Your task to perform on an android device: snooze an email in the gmail app Image 0: 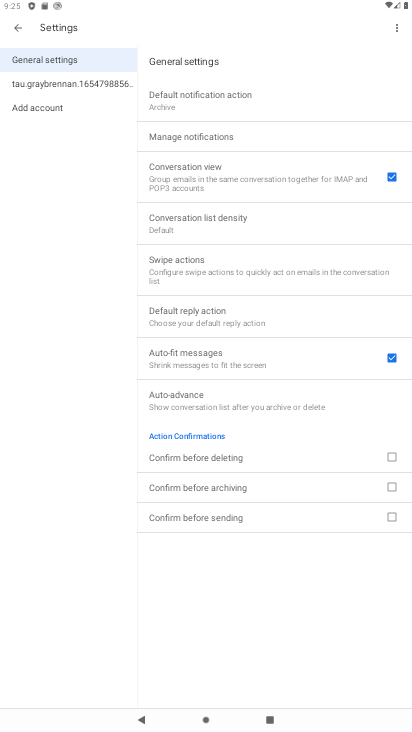
Step 0: click (24, 25)
Your task to perform on an android device: snooze an email in the gmail app Image 1: 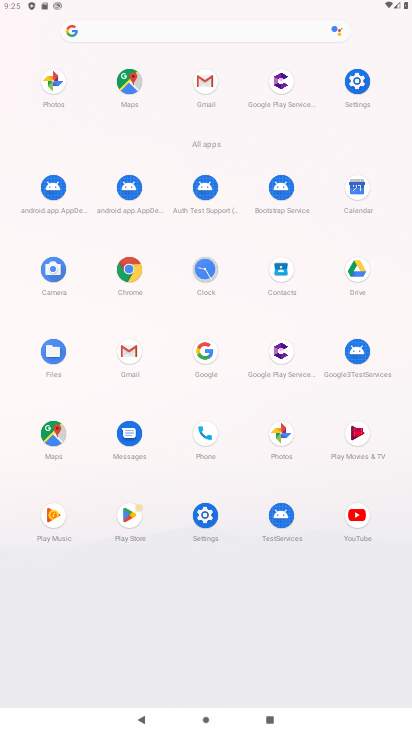
Step 1: click (210, 513)
Your task to perform on an android device: snooze an email in the gmail app Image 2: 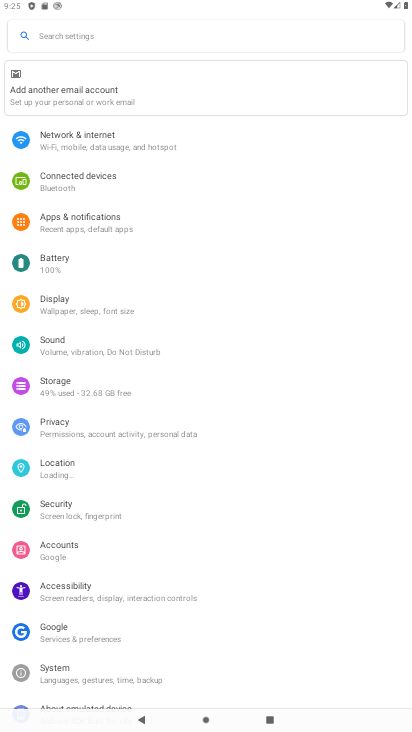
Step 2: press home button
Your task to perform on an android device: snooze an email in the gmail app Image 3: 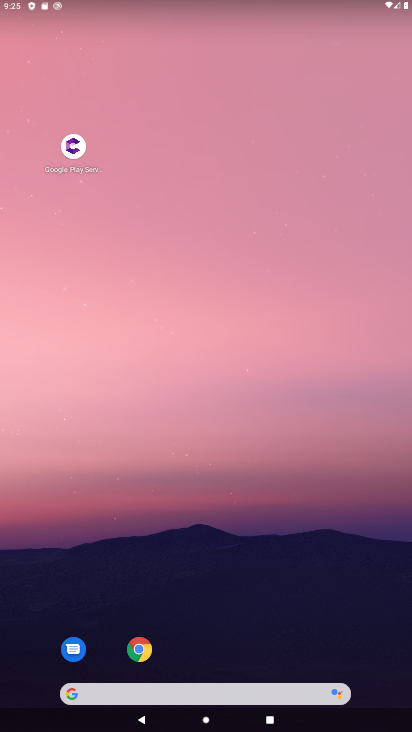
Step 3: drag from (54, 670) to (213, 158)
Your task to perform on an android device: snooze an email in the gmail app Image 4: 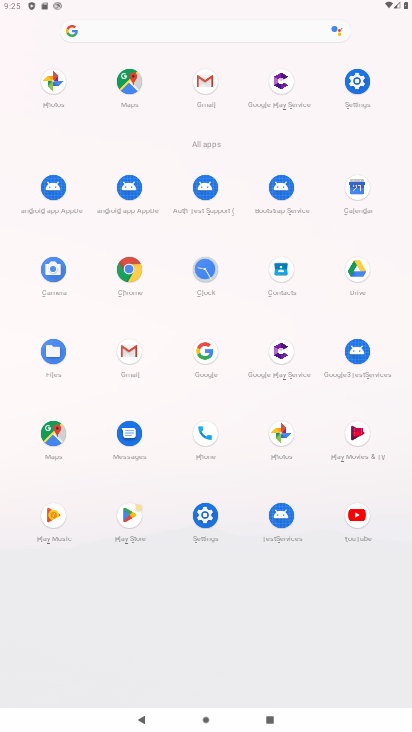
Step 4: click (122, 356)
Your task to perform on an android device: snooze an email in the gmail app Image 5: 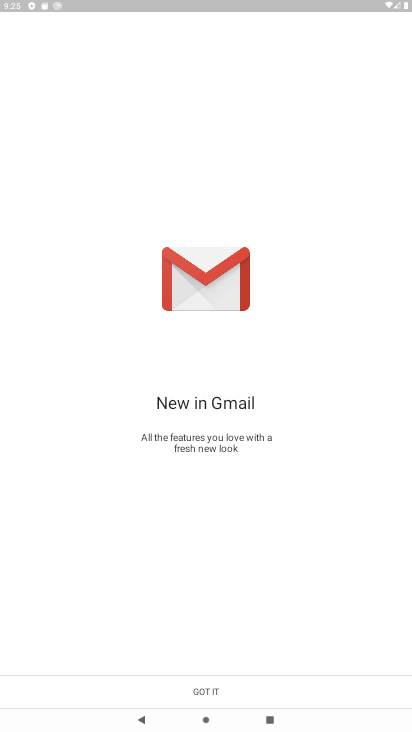
Step 5: click (225, 678)
Your task to perform on an android device: snooze an email in the gmail app Image 6: 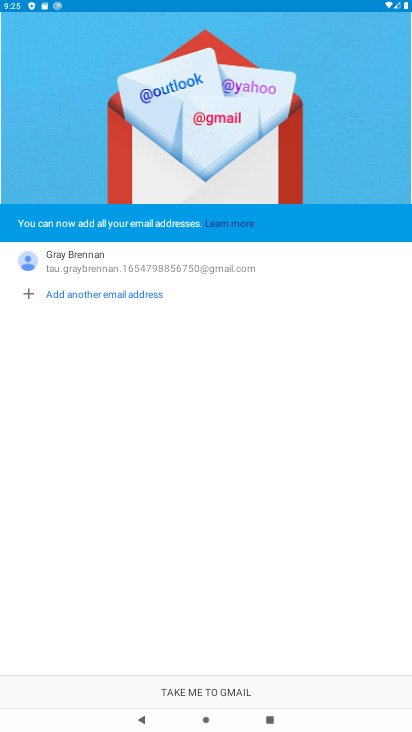
Step 6: click (199, 692)
Your task to perform on an android device: snooze an email in the gmail app Image 7: 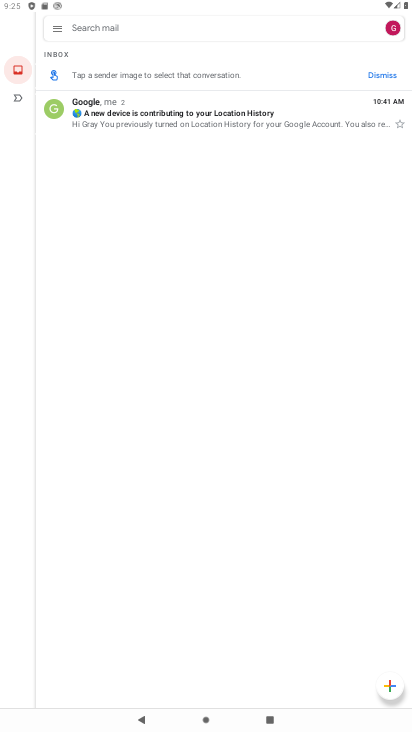
Step 7: click (50, 27)
Your task to perform on an android device: snooze an email in the gmail app Image 8: 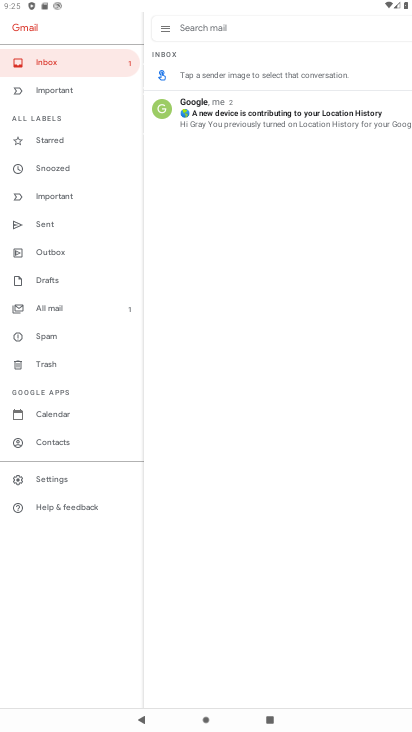
Step 8: click (44, 159)
Your task to perform on an android device: snooze an email in the gmail app Image 9: 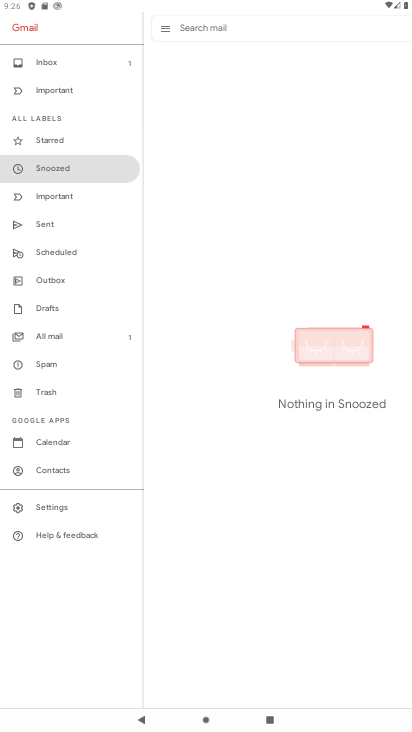
Step 9: task complete